Your task to perform on an android device: clear all cookies in the chrome app Image 0: 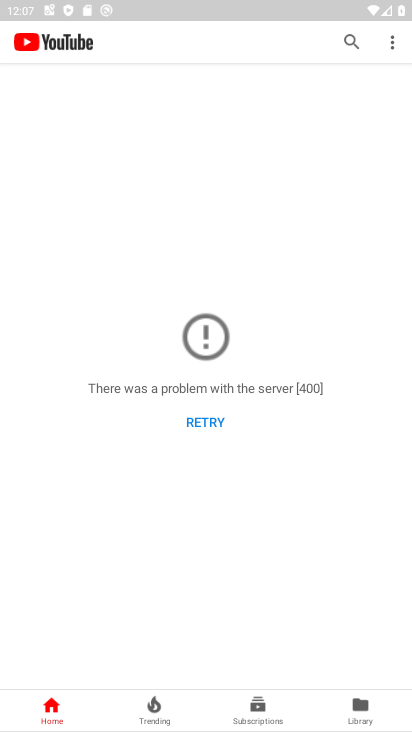
Step 0: press home button
Your task to perform on an android device: clear all cookies in the chrome app Image 1: 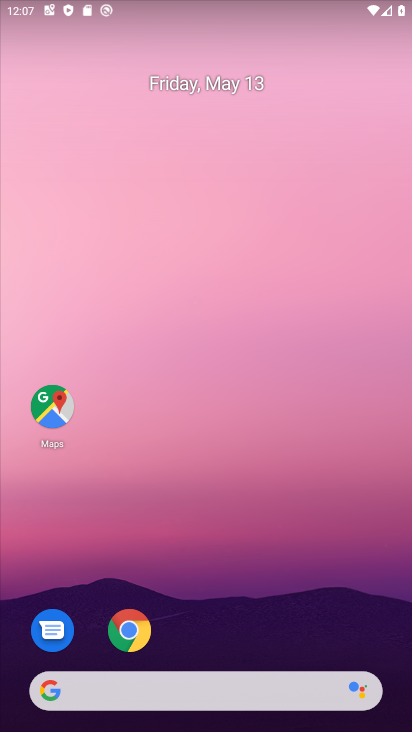
Step 1: drag from (327, 613) to (296, 128)
Your task to perform on an android device: clear all cookies in the chrome app Image 2: 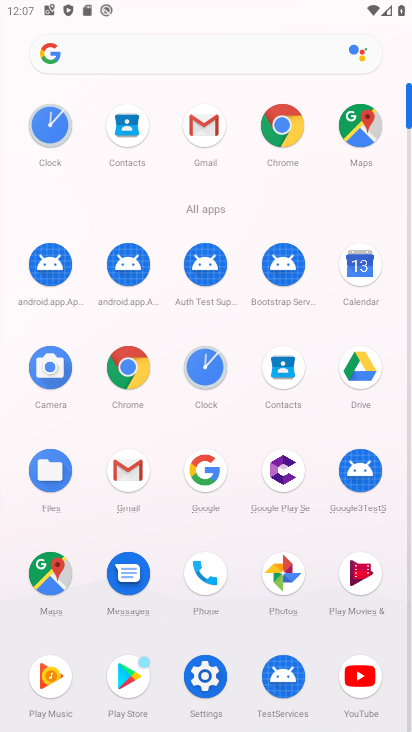
Step 2: click (129, 368)
Your task to perform on an android device: clear all cookies in the chrome app Image 3: 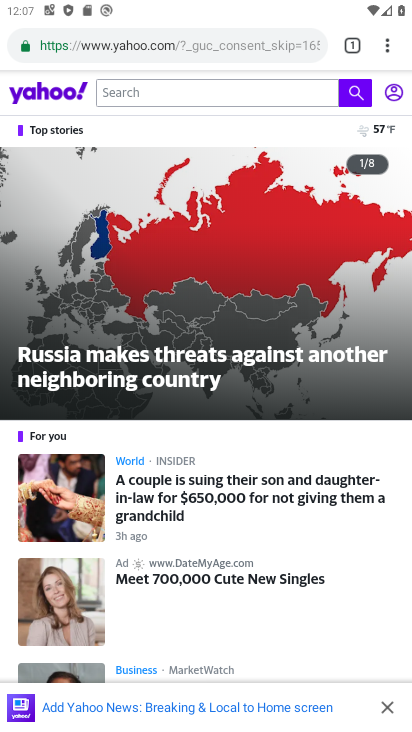
Step 3: drag from (397, 53) to (233, 303)
Your task to perform on an android device: clear all cookies in the chrome app Image 4: 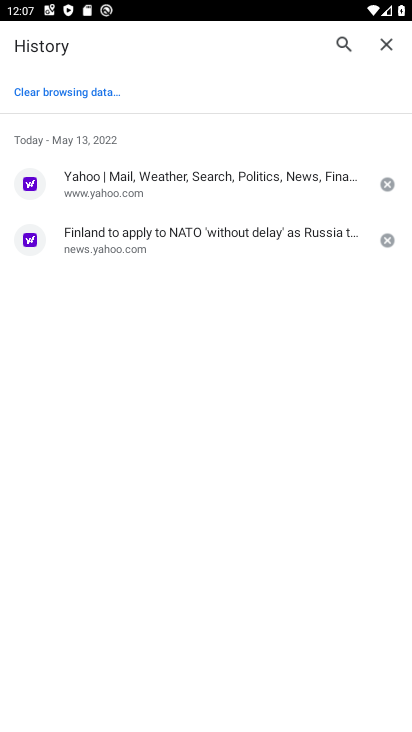
Step 4: click (99, 89)
Your task to perform on an android device: clear all cookies in the chrome app Image 5: 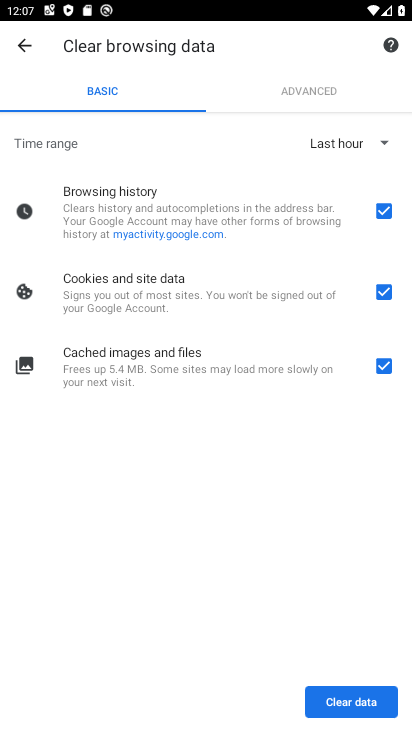
Step 5: click (357, 701)
Your task to perform on an android device: clear all cookies in the chrome app Image 6: 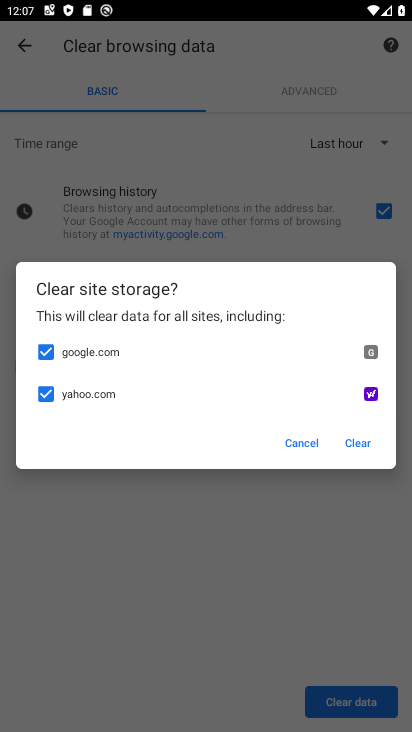
Step 6: click (356, 444)
Your task to perform on an android device: clear all cookies in the chrome app Image 7: 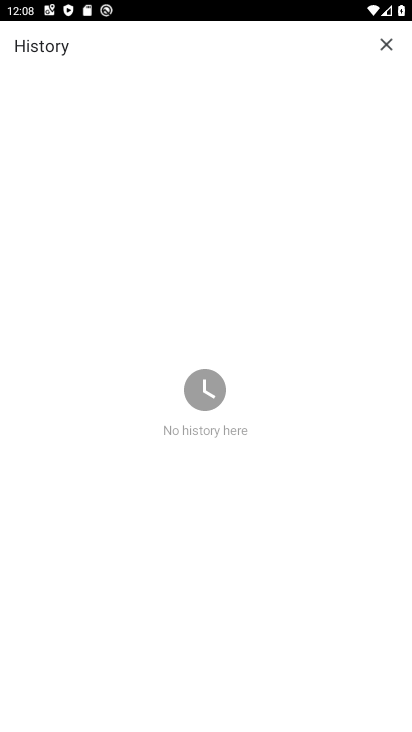
Step 7: task complete